Your task to perform on an android device: Open settings on Google Maps Image 0: 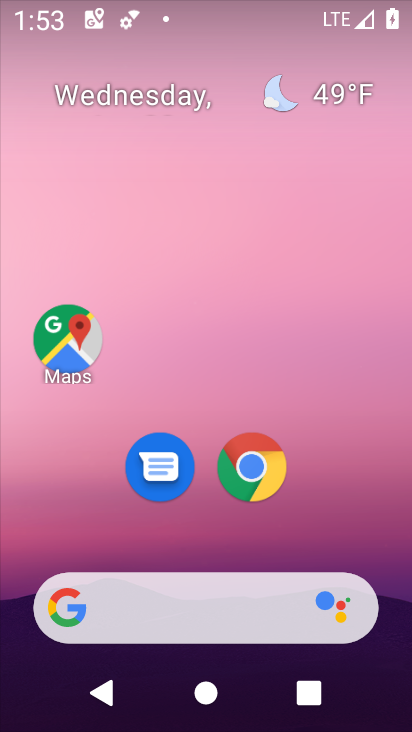
Step 0: click (64, 340)
Your task to perform on an android device: Open settings on Google Maps Image 1: 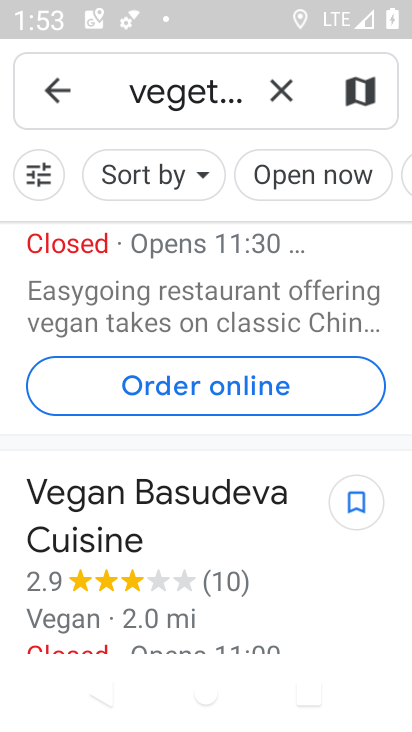
Step 1: press back button
Your task to perform on an android device: Open settings on Google Maps Image 2: 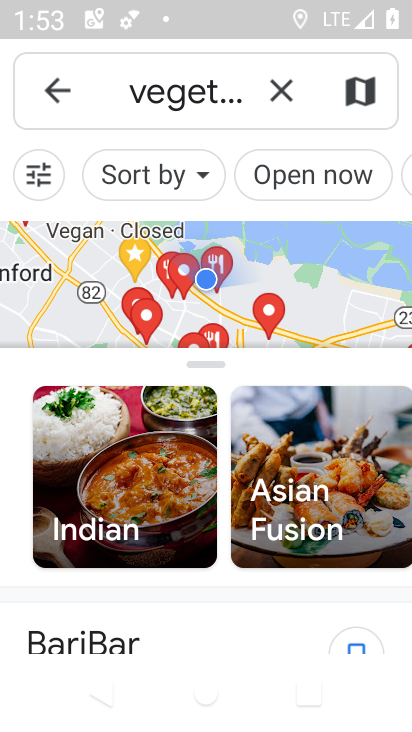
Step 2: press back button
Your task to perform on an android device: Open settings on Google Maps Image 3: 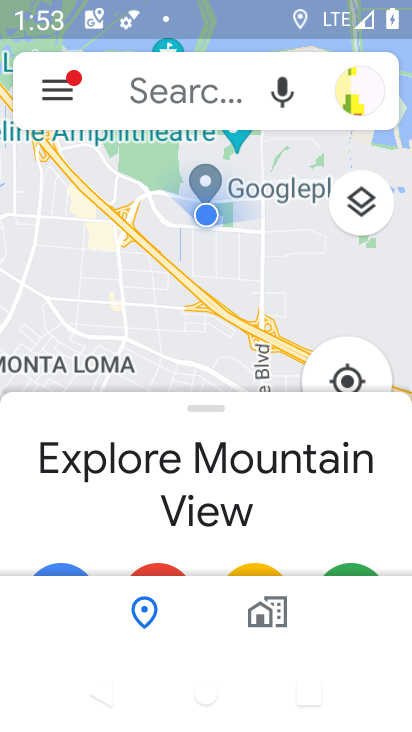
Step 3: click (57, 90)
Your task to perform on an android device: Open settings on Google Maps Image 4: 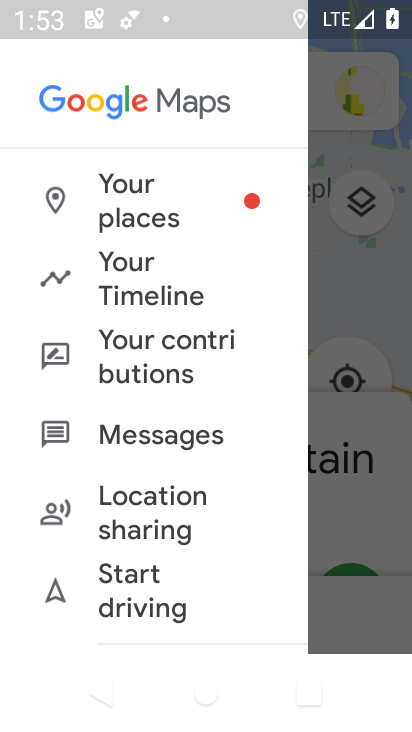
Step 4: drag from (232, 561) to (238, 308)
Your task to perform on an android device: Open settings on Google Maps Image 5: 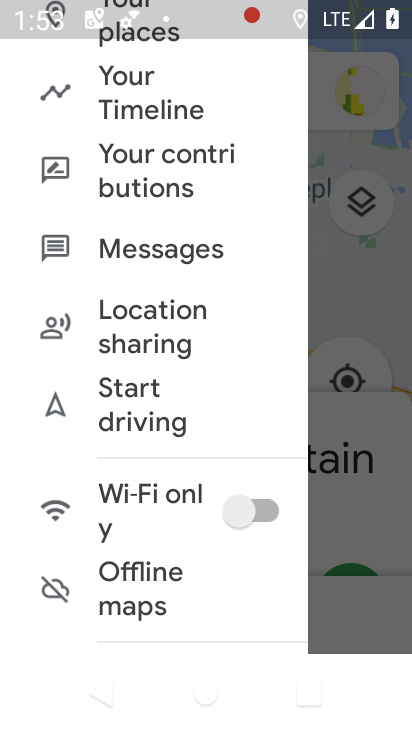
Step 5: drag from (216, 529) to (235, 244)
Your task to perform on an android device: Open settings on Google Maps Image 6: 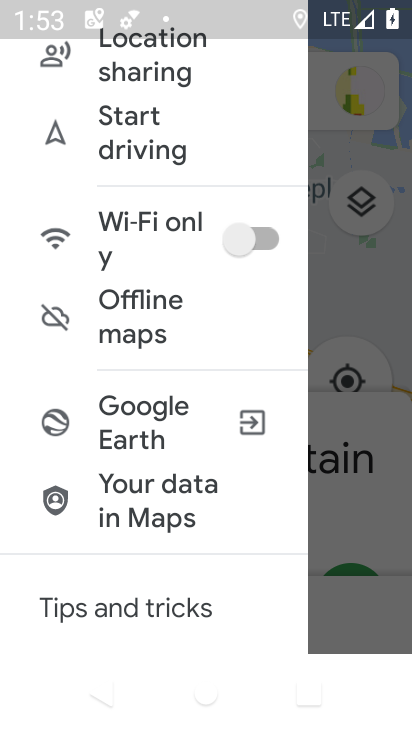
Step 6: drag from (226, 578) to (186, 210)
Your task to perform on an android device: Open settings on Google Maps Image 7: 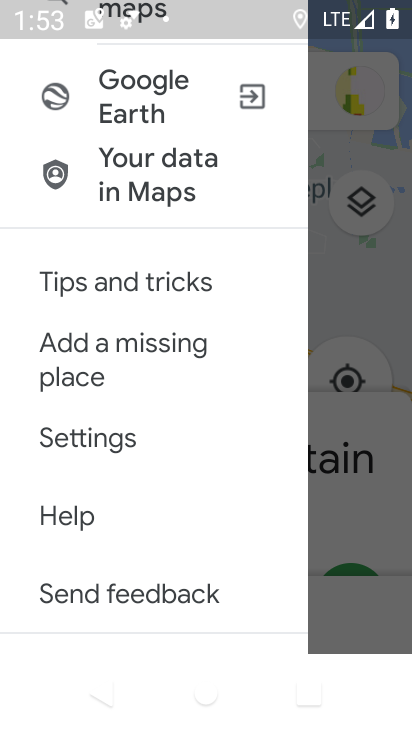
Step 7: click (77, 440)
Your task to perform on an android device: Open settings on Google Maps Image 8: 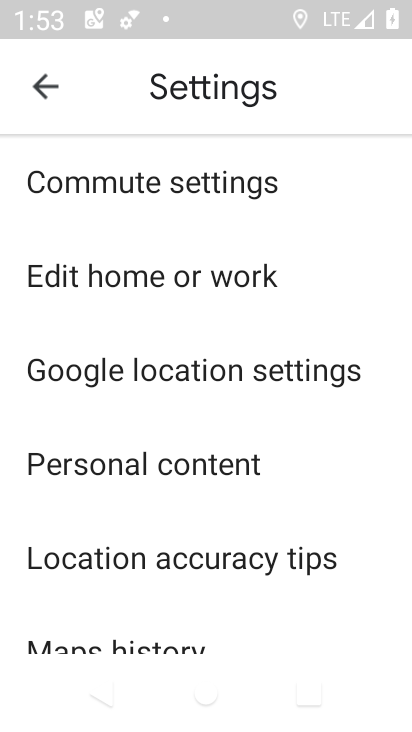
Step 8: task complete